Your task to perform on an android device: Open internet settings Image 0: 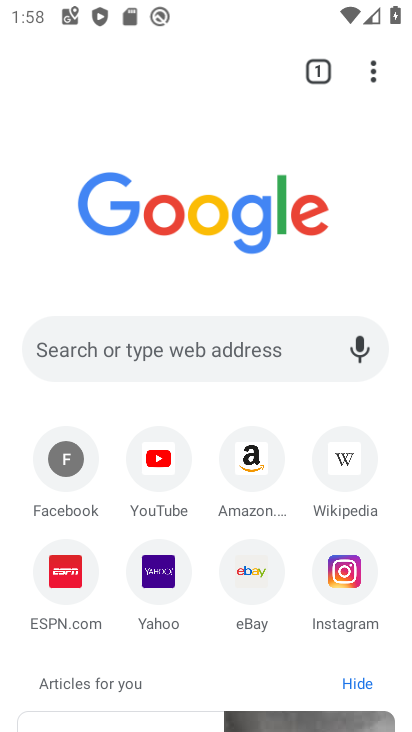
Step 0: press home button
Your task to perform on an android device: Open internet settings Image 1: 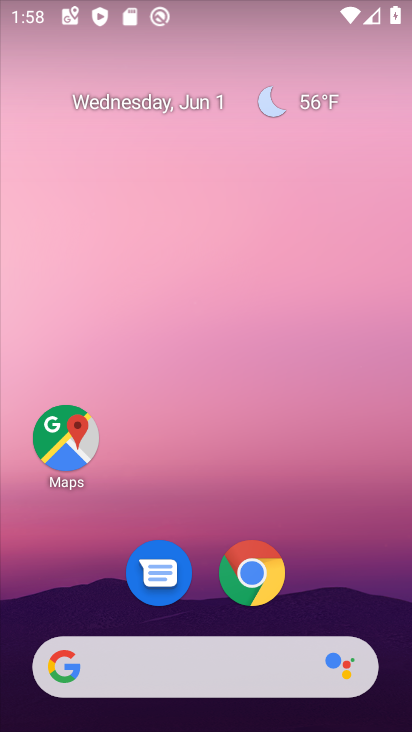
Step 1: drag from (174, 38) to (42, 263)
Your task to perform on an android device: Open internet settings Image 2: 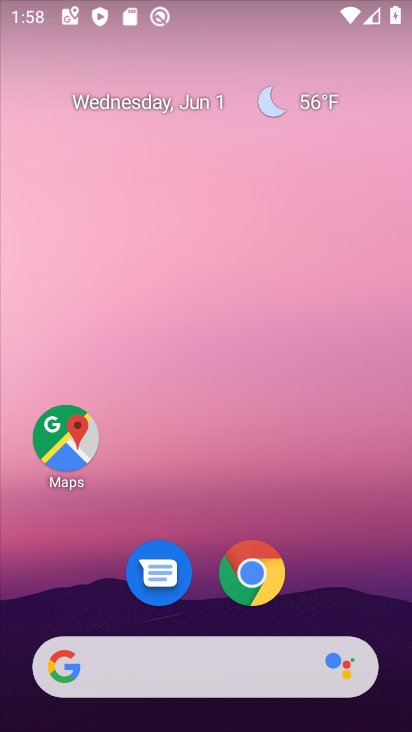
Step 2: drag from (382, 571) to (270, 0)
Your task to perform on an android device: Open internet settings Image 3: 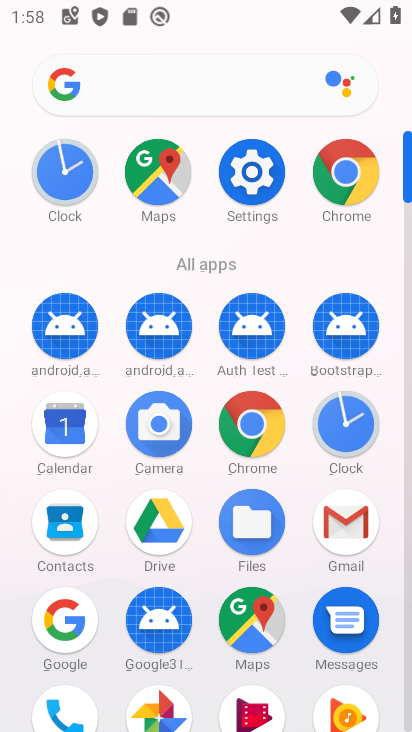
Step 3: click (265, 215)
Your task to perform on an android device: Open internet settings Image 4: 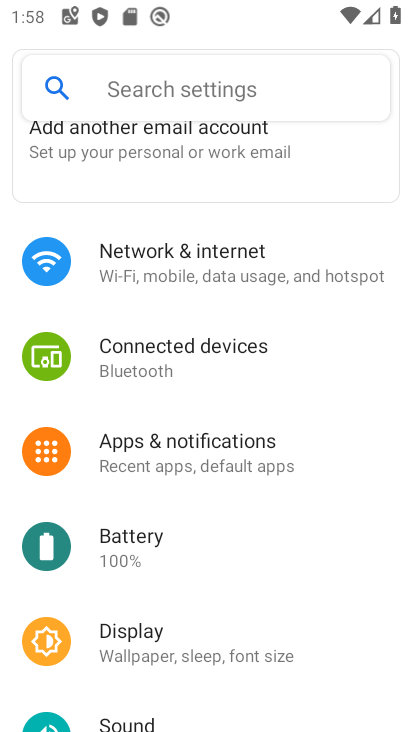
Step 4: drag from (301, 202) to (367, 610)
Your task to perform on an android device: Open internet settings Image 5: 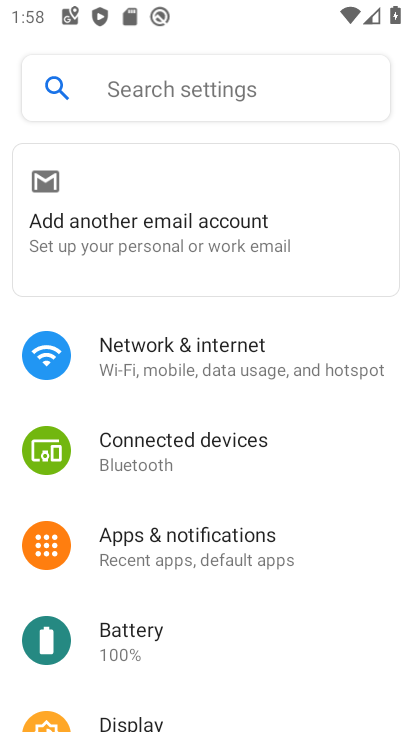
Step 5: click (207, 352)
Your task to perform on an android device: Open internet settings Image 6: 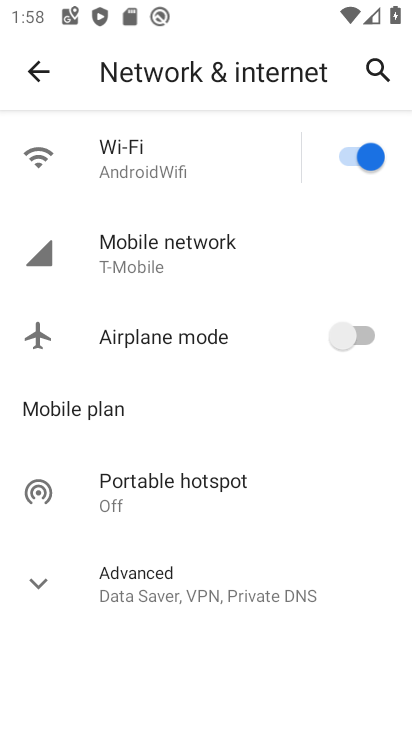
Step 6: task complete